Your task to perform on an android device: Add "macbook pro 13 inch" to the cart on bestbuy, then select checkout. Image 0: 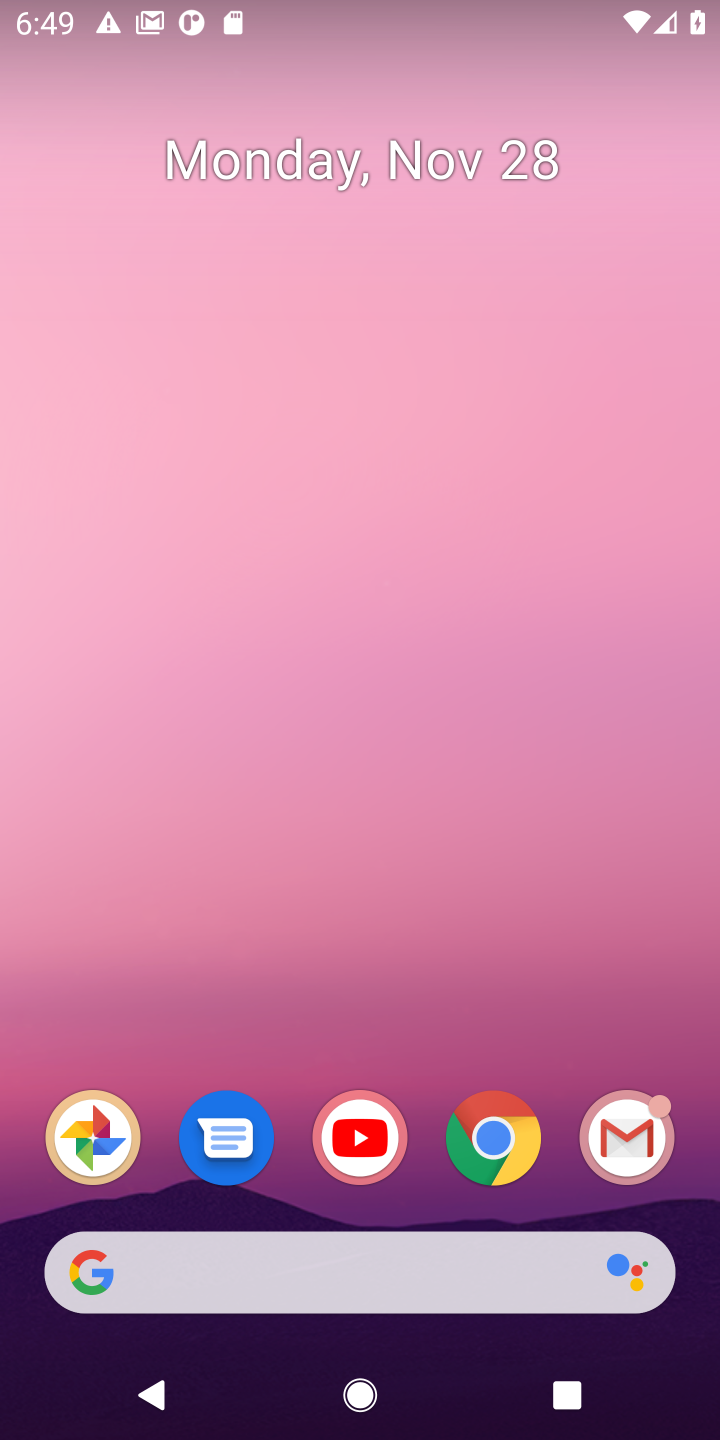
Step 0: click (495, 1114)
Your task to perform on an android device: Add "macbook pro 13 inch" to the cart on bestbuy, then select checkout. Image 1: 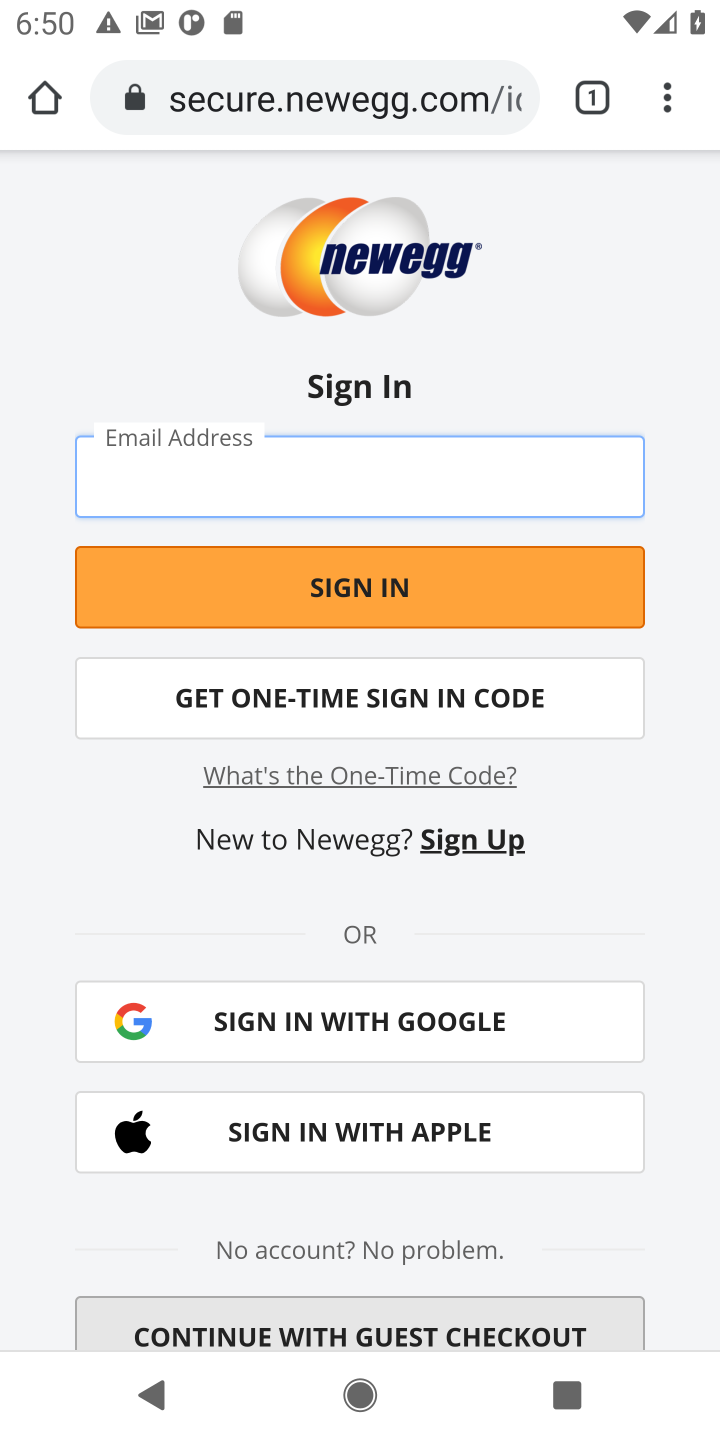
Step 1: click (228, 90)
Your task to perform on an android device: Add "macbook pro 13 inch" to the cart on bestbuy, then select checkout. Image 2: 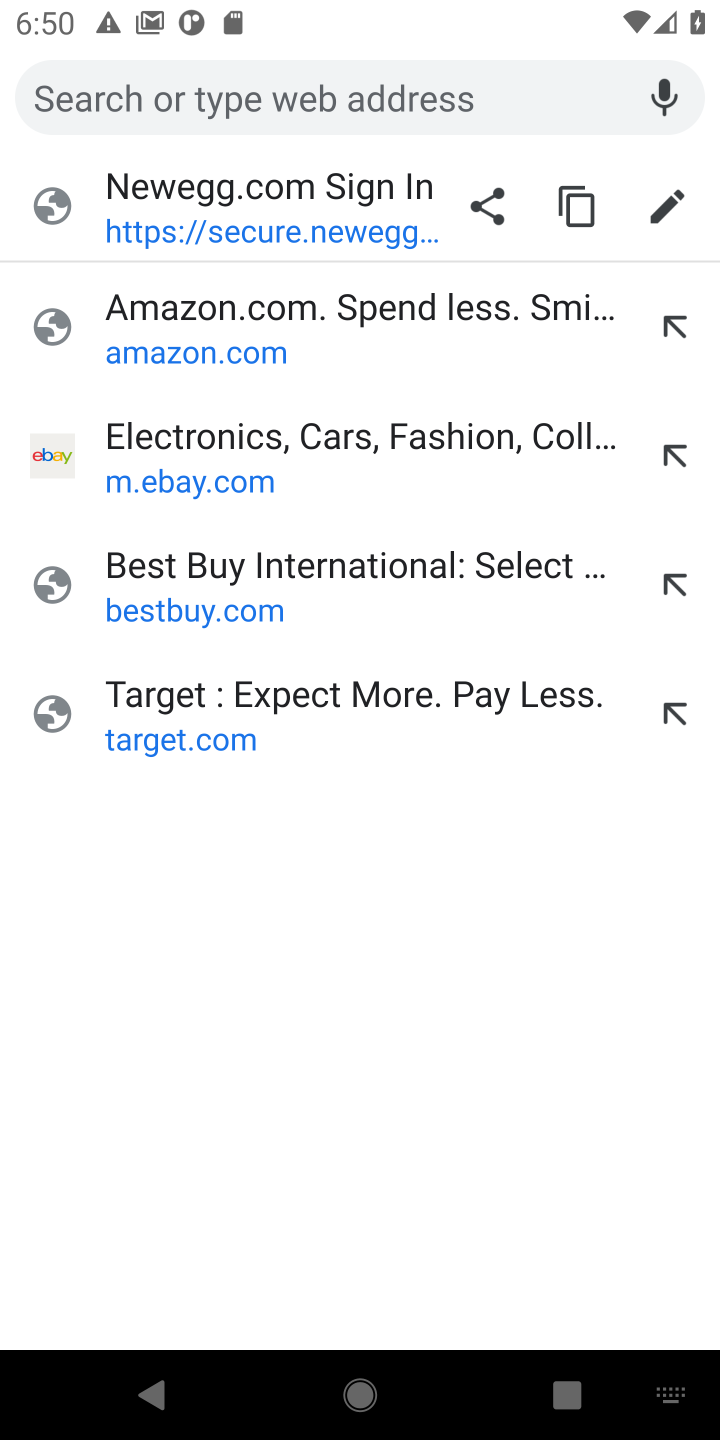
Step 2: click (123, 566)
Your task to perform on an android device: Add "macbook pro 13 inch" to the cart on bestbuy, then select checkout. Image 3: 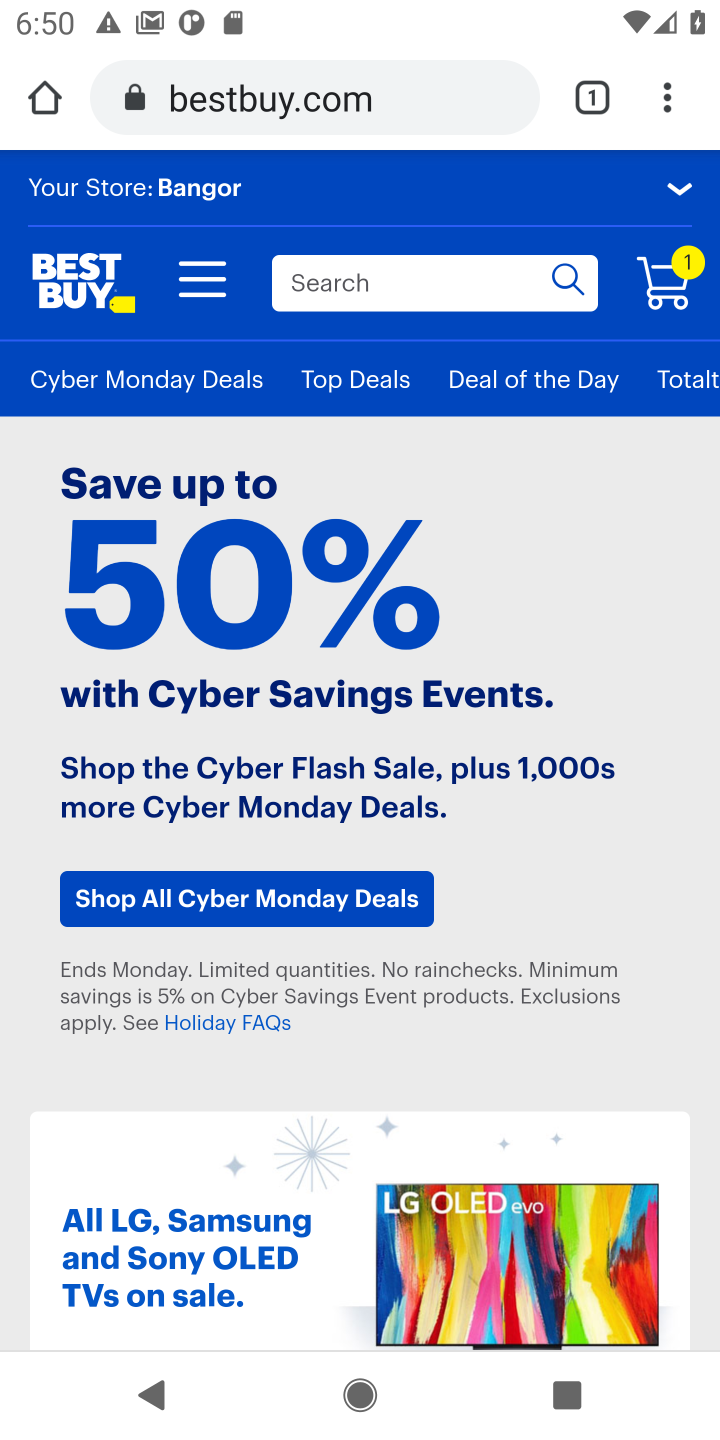
Step 3: click (416, 289)
Your task to perform on an android device: Add "macbook pro 13 inch" to the cart on bestbuy, then select checkout. Image 4: 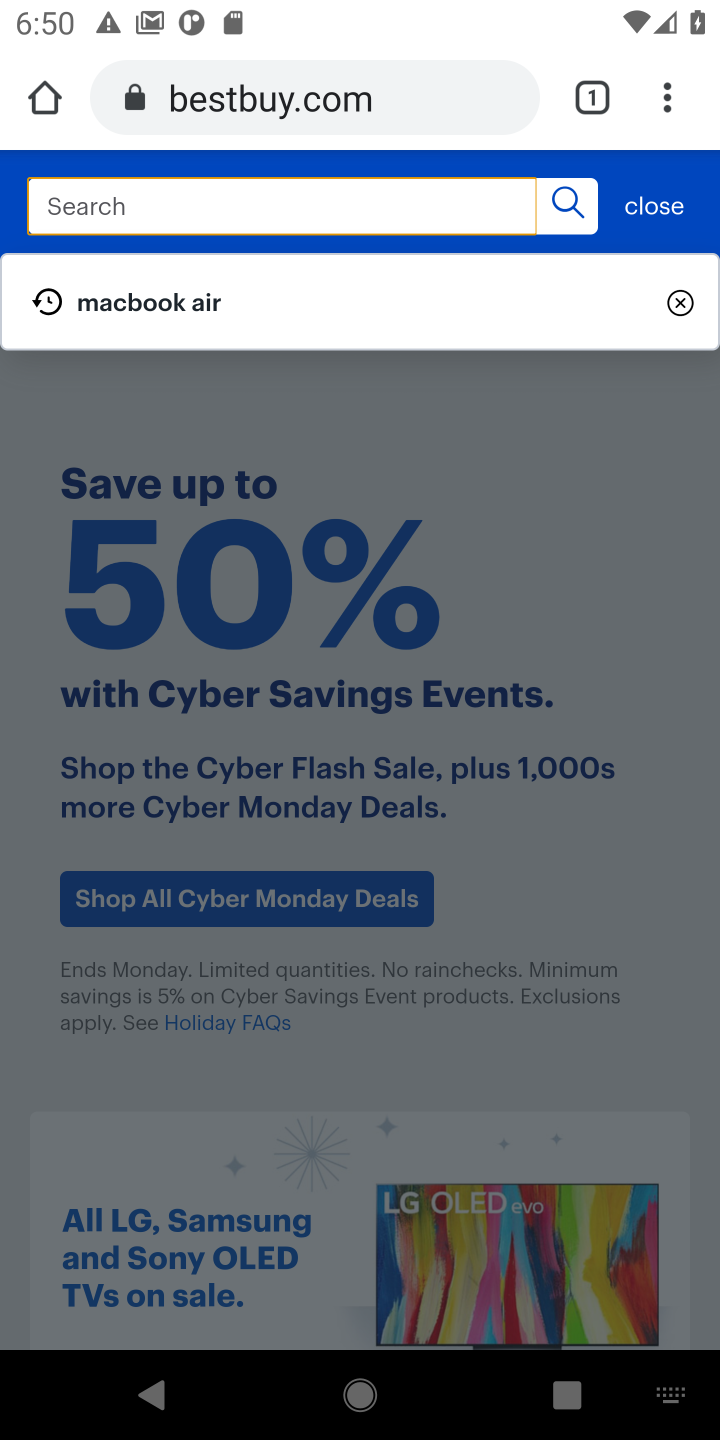
Step 4: type "macbook pro 13 inch"
Your task to perform on an android device: Add "macbook pro 13 inch" to the cart on bestbuy, then select checkout. Image 5: 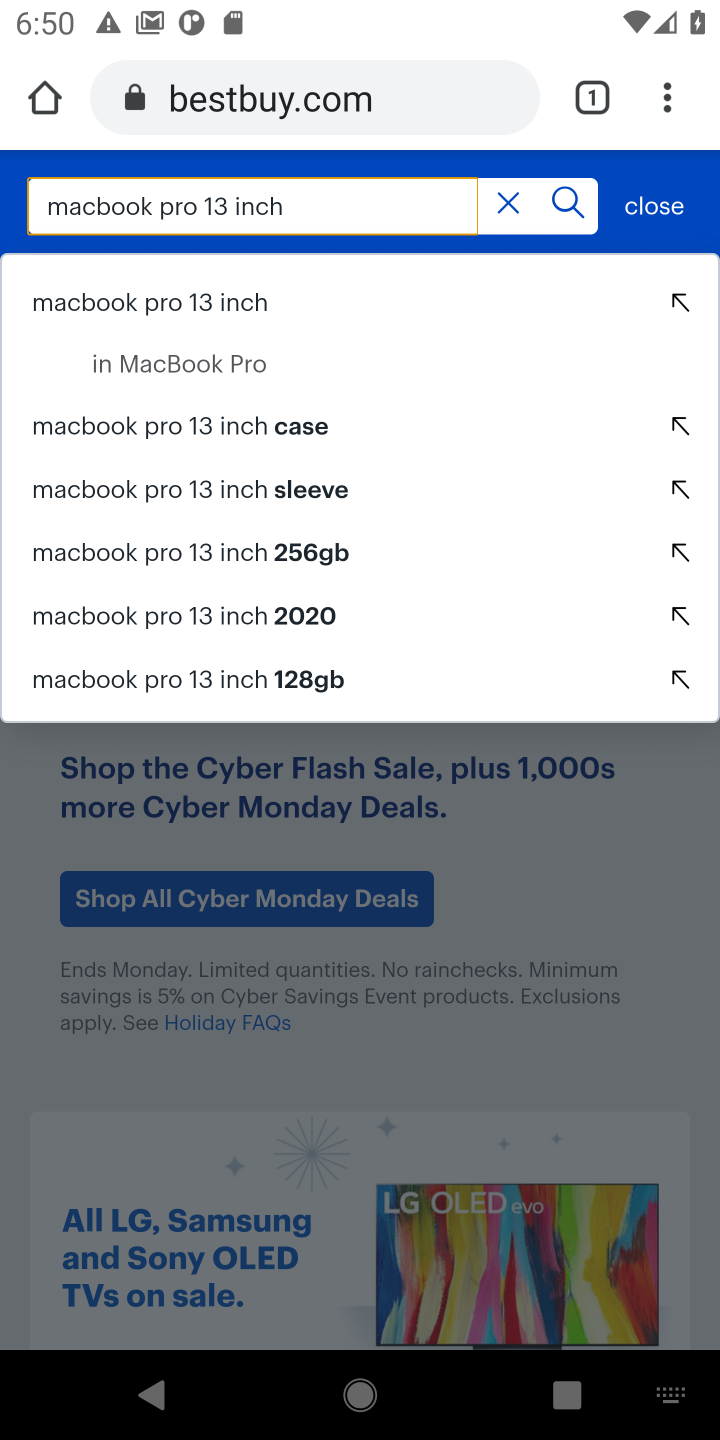
Step 5: click (162, 318)
Your task to perform on an android device: Add "macbook pro 13 inch" to the cart on bestbuy, then select checkout. Image 6: 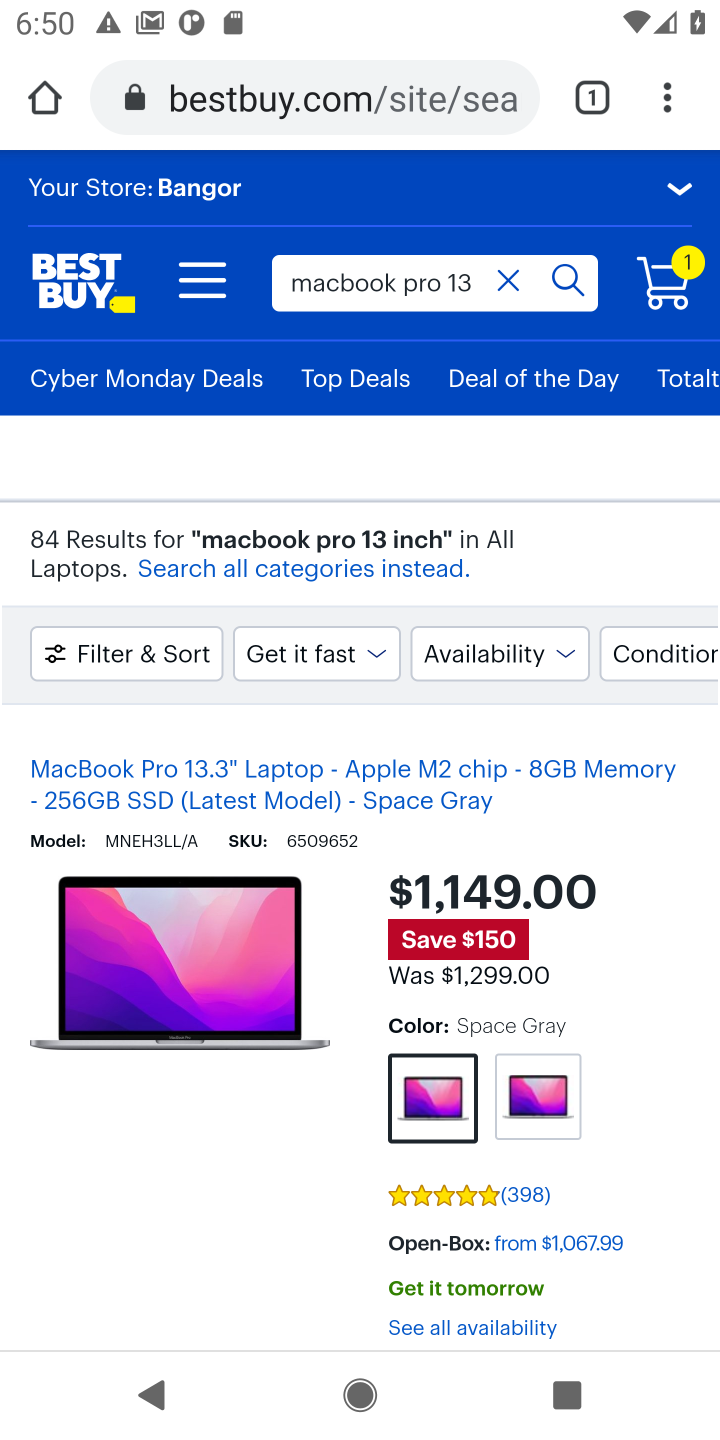
Step 6: drag from (298, 1106) to (337, 609)
Your task to perform on an android device: Add "macbook pro 13 inch" to the cart on bestbuy, then select checkout. Image 7: 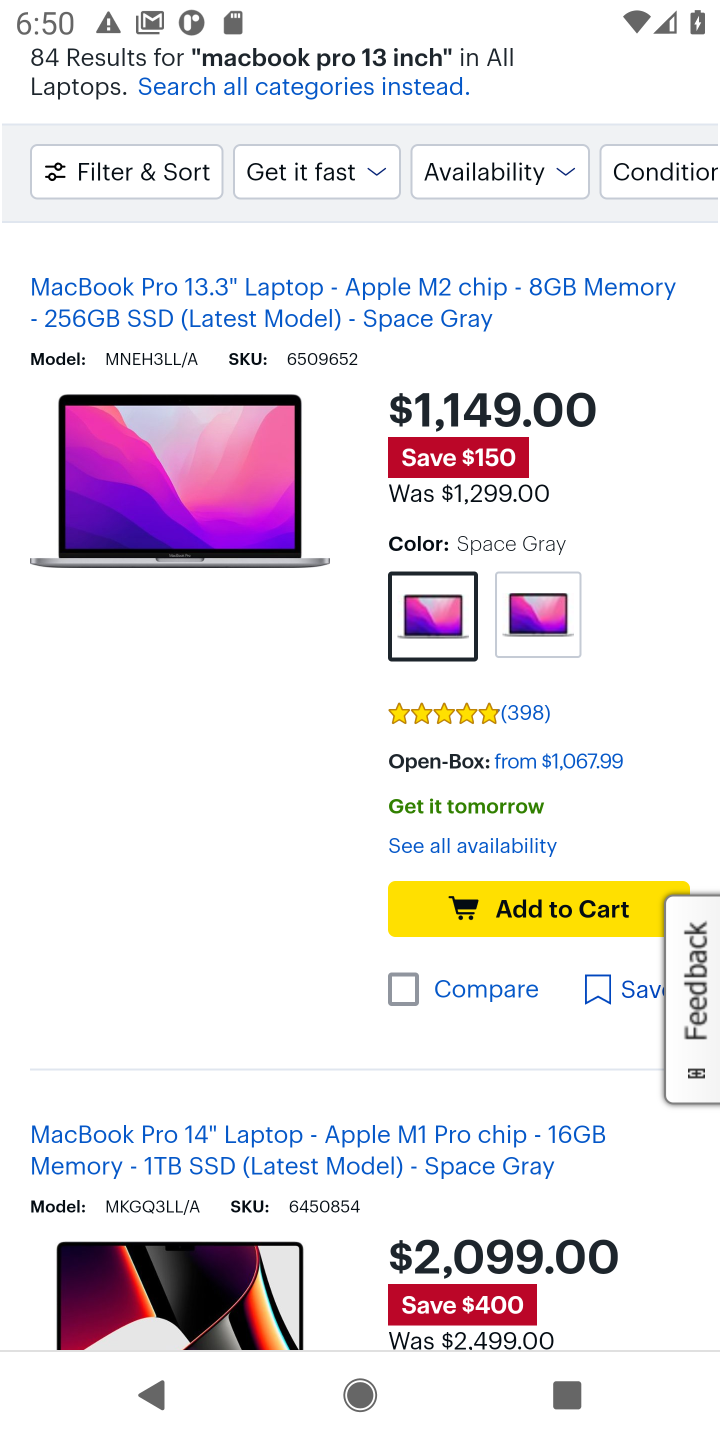
Step 7: click (504, 906)
Your task to perform on an android device: Add "macbook pro 13 inch" to the cart on bestbuy, then select checkout. Image 8: 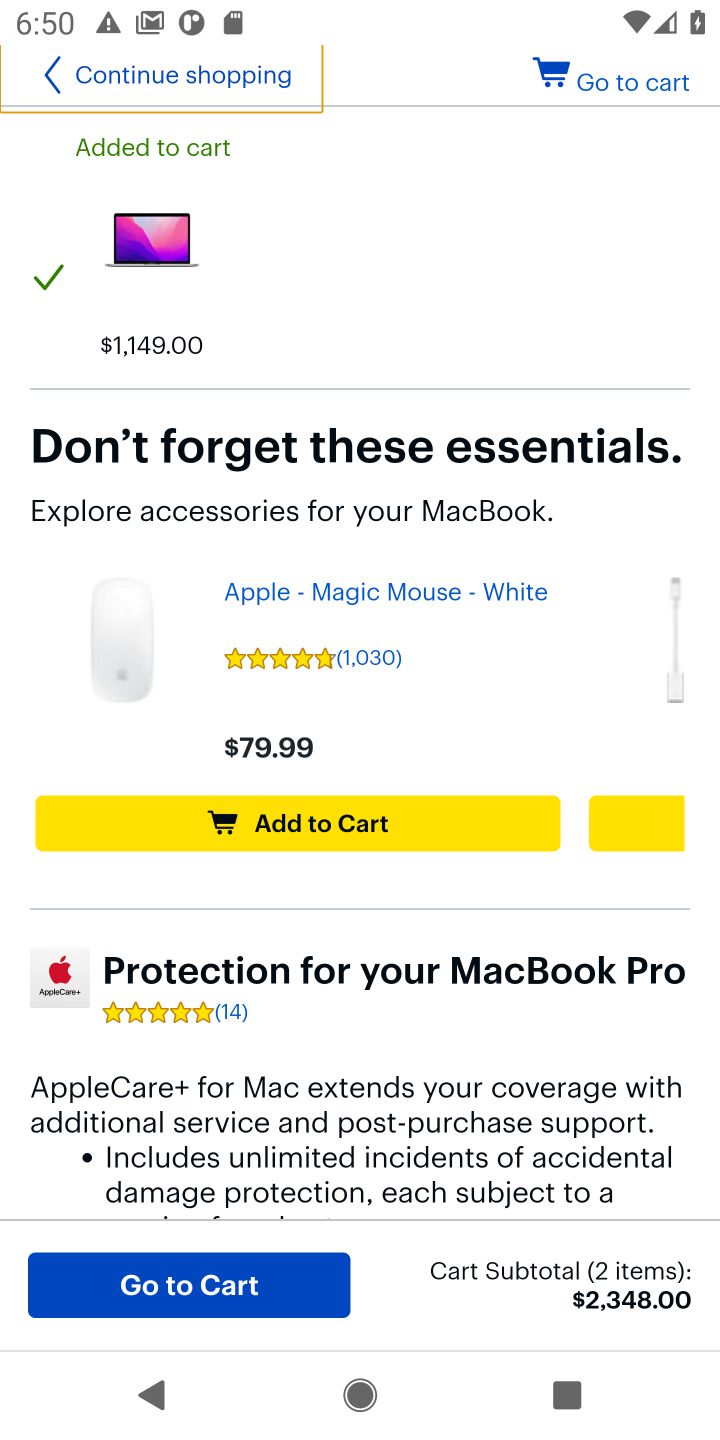
Step 8: click (614, 80)
Your task to perform on an android device: Add "macbook pro 13 inch" to the cart on bestbuy, then select checkout. Image 9: 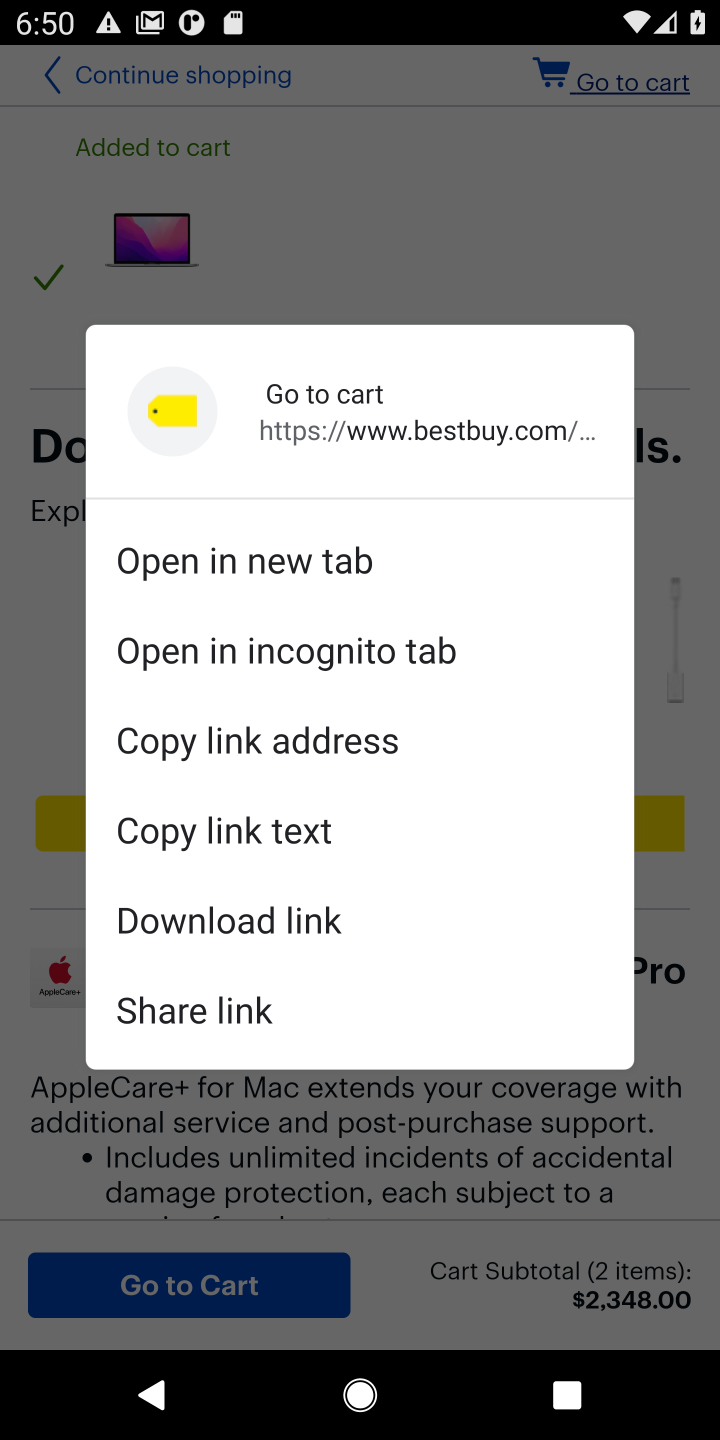
Step 9: click (614, 80)
Your task to perform on an android device: Add "macbook pro 13 inch" to the cart on bestbuy, then select checkout. Image 10: 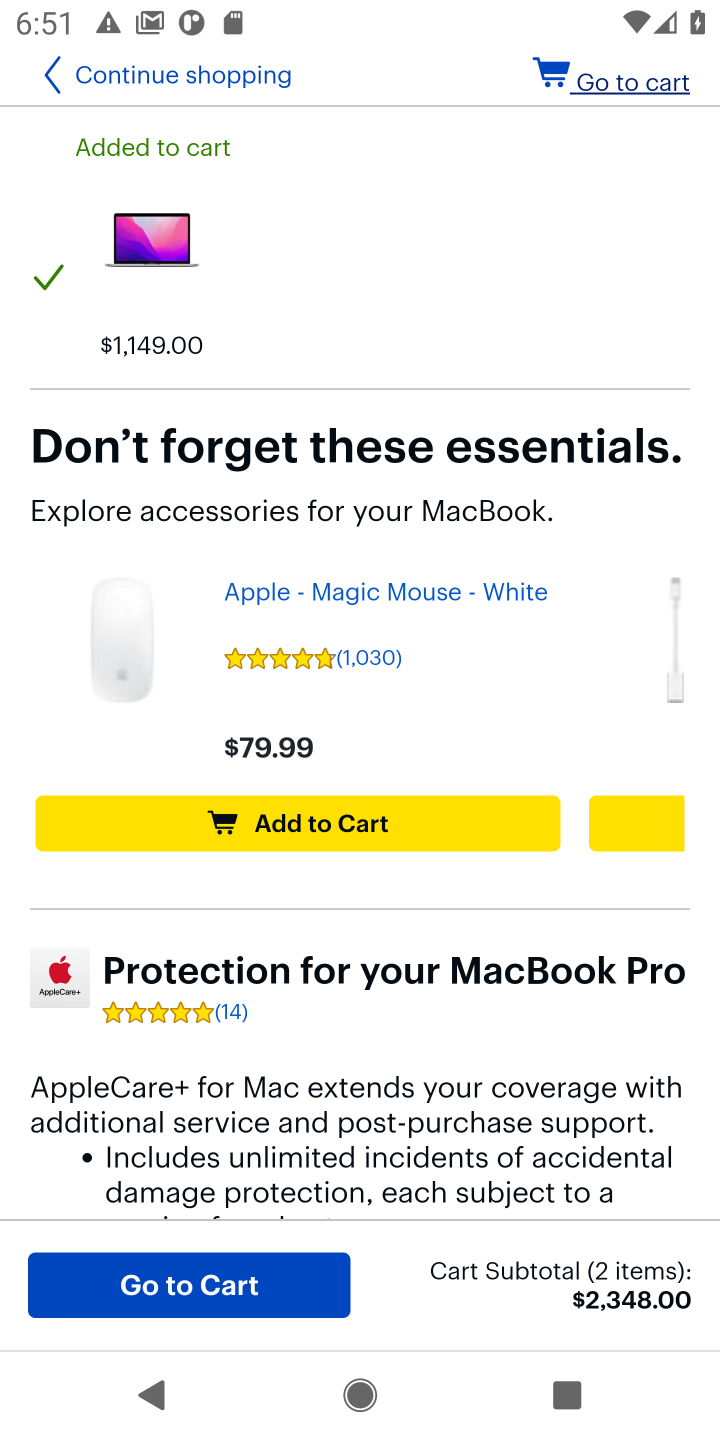
Step 10: click (628, 85)
Your task to perform on an android device: Add "macbook pro 13 inch" to the cart on bestbuy, then select checkout. Image 11: 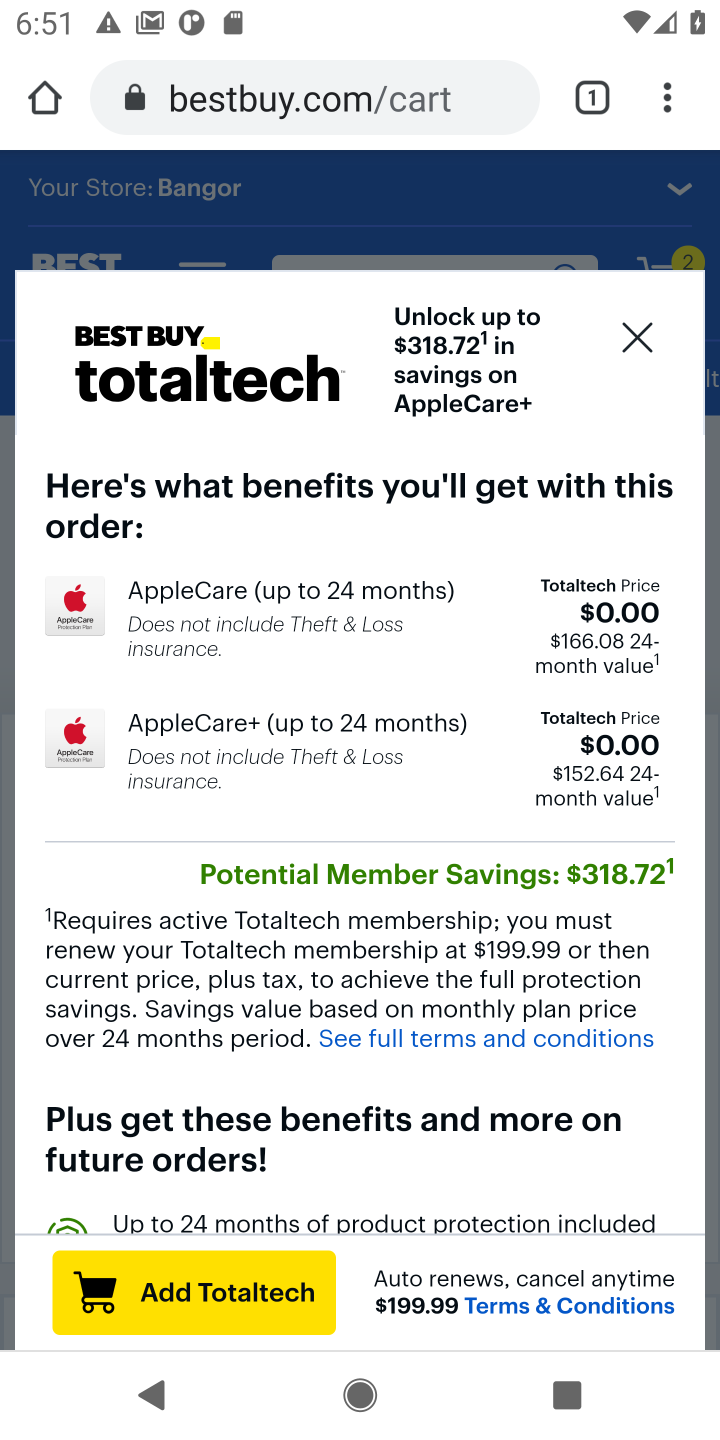
Step 11: click (635, 344)
Your task to perform on an android device: Add "macbook pro 13 inch" to the cart on bestbuy, then select checkout. Image 12: 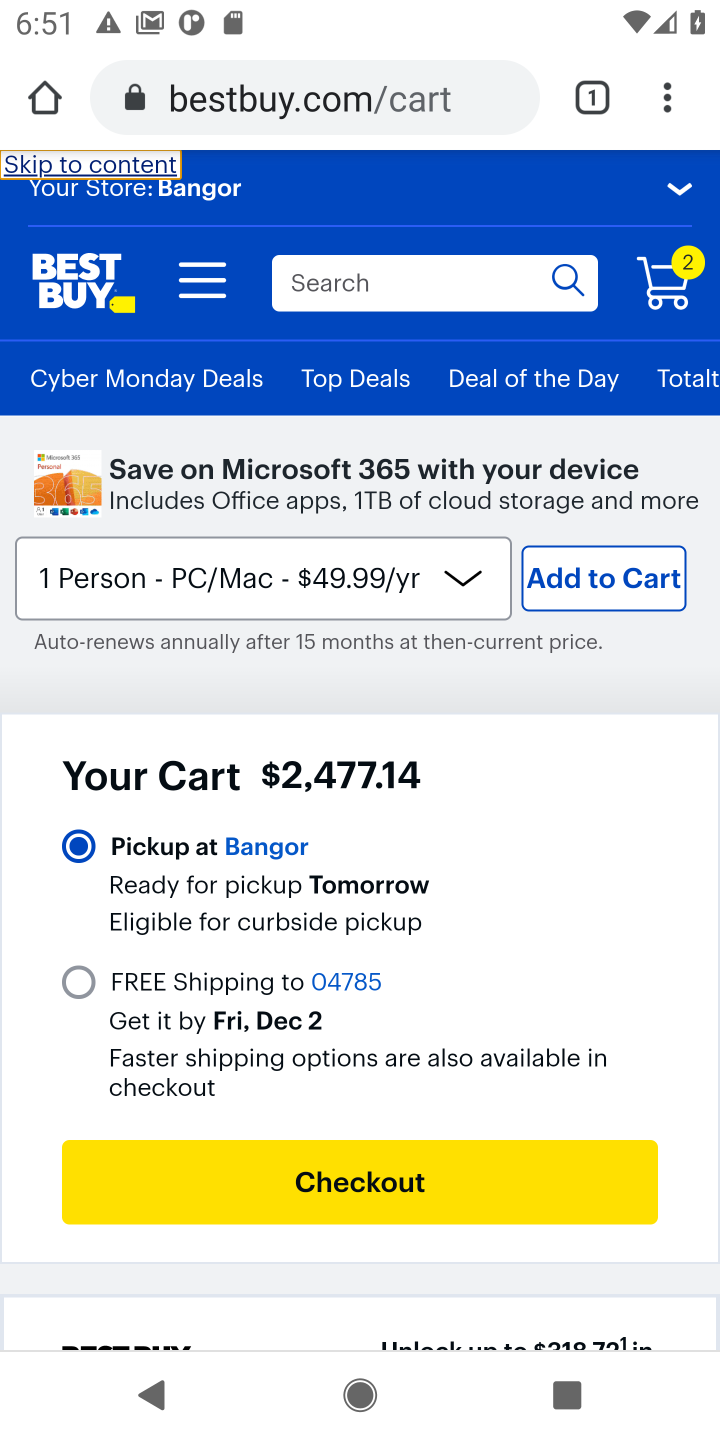
Step 12: click (345, 1173)
Your task to perform on an android device: Add "macbook pro 13 inch" to the cart on bestbuy, then select checkout. Image 13: 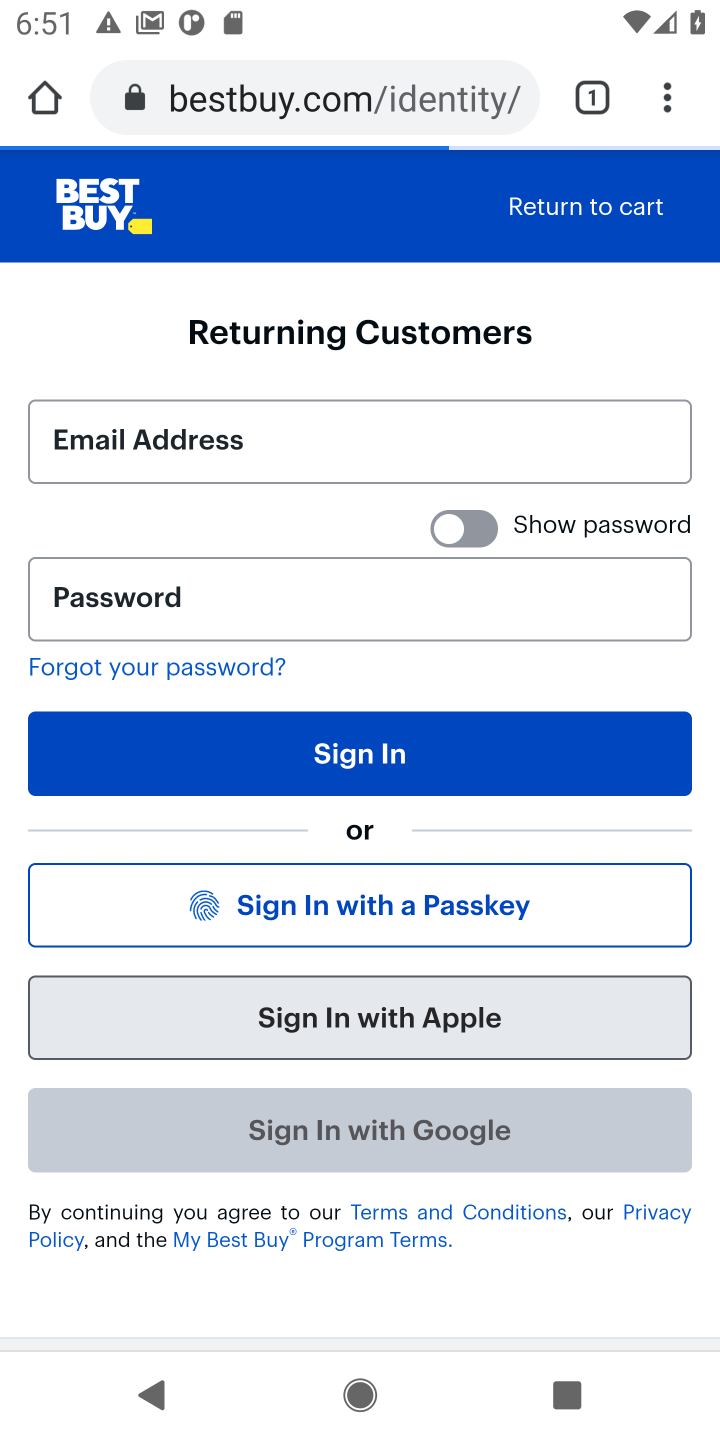
Step 13: task complete